Your task to perform on an android device: Turn off the flashlight Image 0: 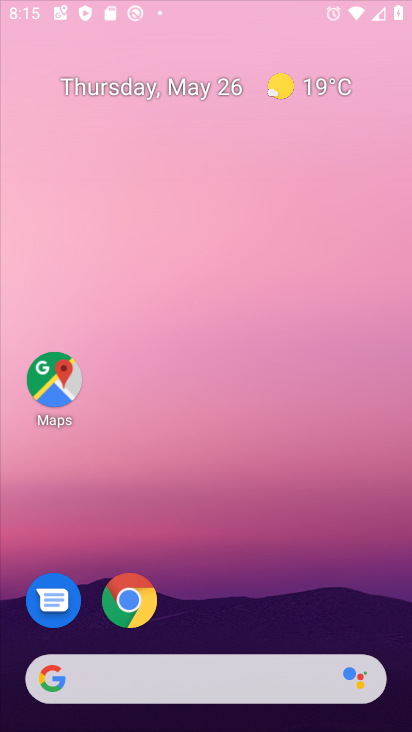
Step 0: press home button
Your task to perform on an android device: Turn off the flashlight Image 1: 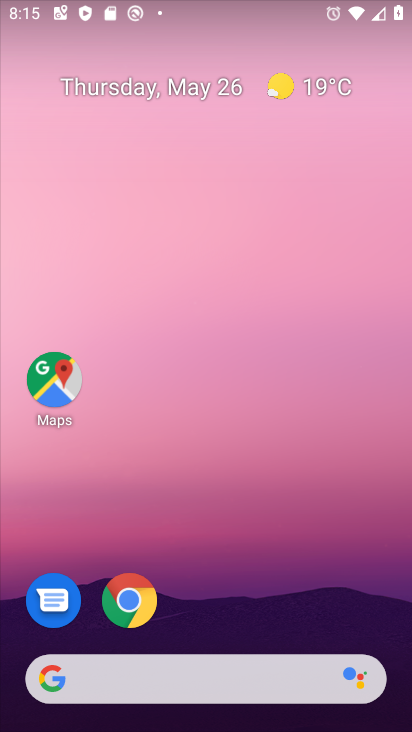
Step 1: task complete